Your task to perform on an android device: turn off location history Image 0: 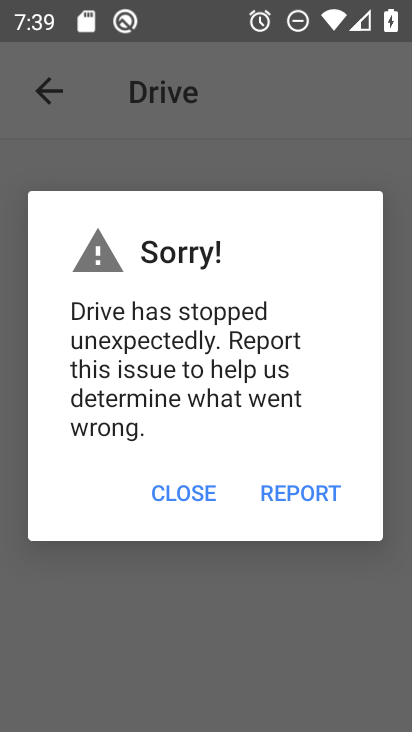
Step 0: press home button
Your task to perform on an android device: turn off location history Image 1: 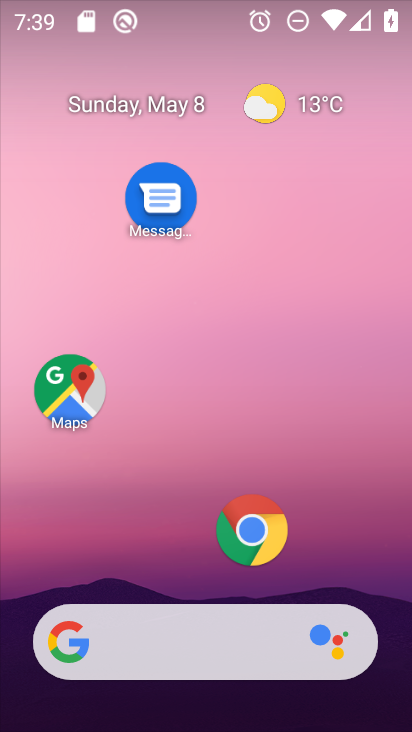
Step 1: drag from (207, 584) to (292, 4)
Your task to perform on an android device: turn off location history Image 2: 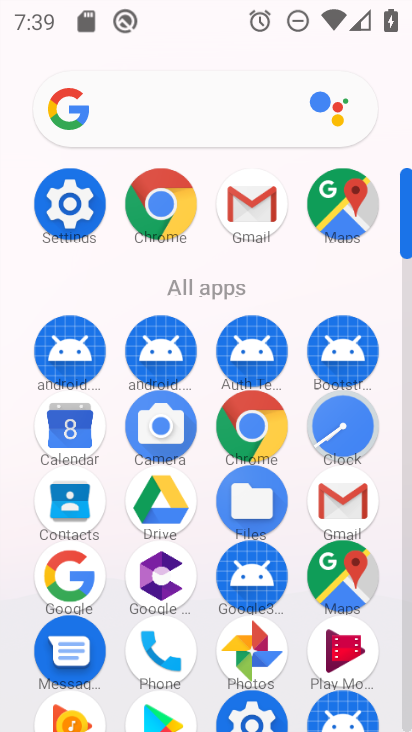
Step 2: click (63, 192)
Your task to perform on an android device: turn off location history Image 3: 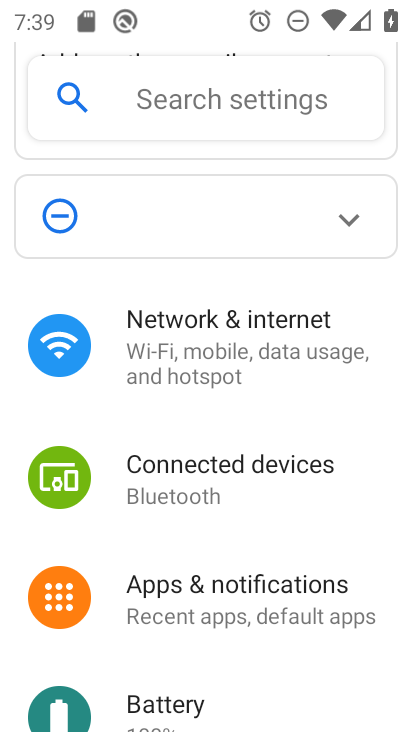
Step 3: drag from (235, 642) to (299, 10)
Your task to perform on an android device: turn off location history Image 4: 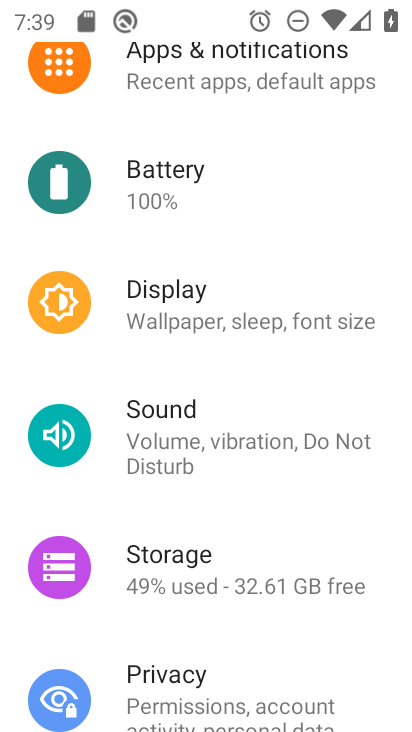
Step 4: drag from (180, 624) to (242, 265)
Your task to perform on an android device: turn off location history Image 5: 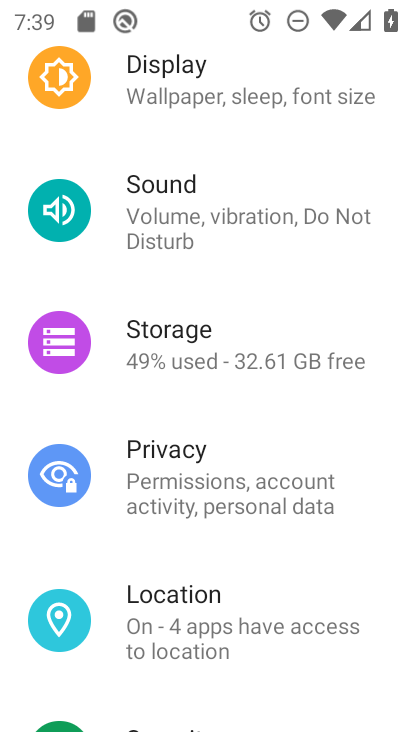
Step 5: click (183, 631)
Your task to perform on an android device: turn off location history Image 6: 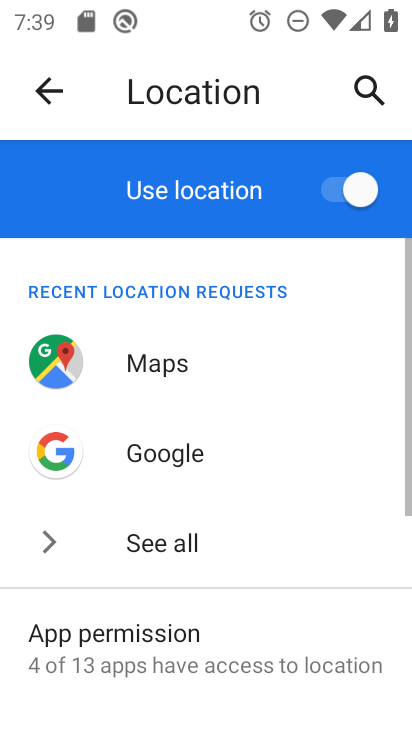
Step 6: drag from (219, 647) to (262, 57)
Your task to perform on an android device: turn off location history Image 7: 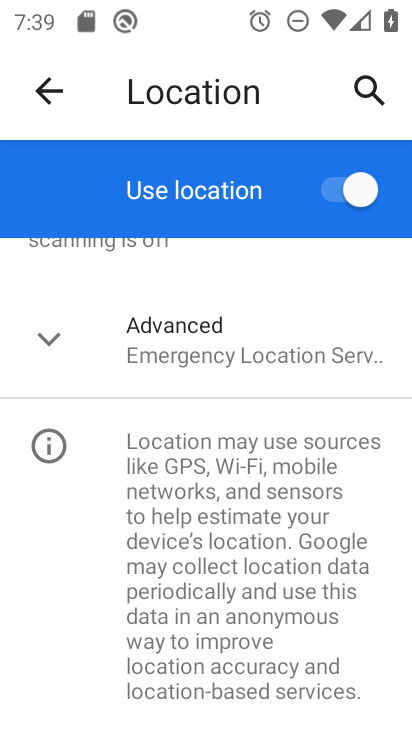
Step 7: click (48, 335)
Your task to perform on an android device: turn off location history Image 8: 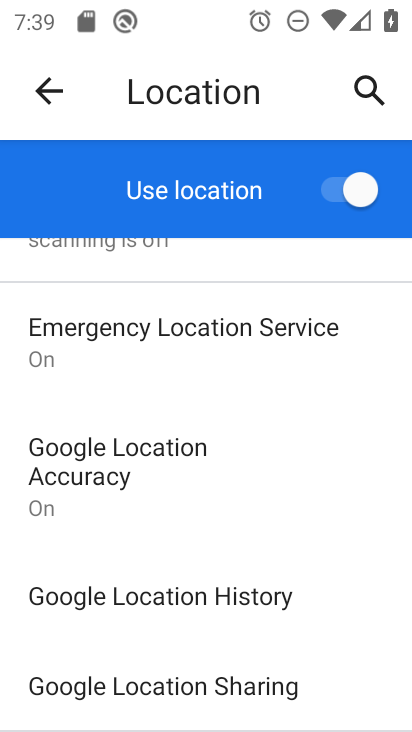
Step 8: click (202, 599)
Your task to perform on an android device: turn off location history Image 9: 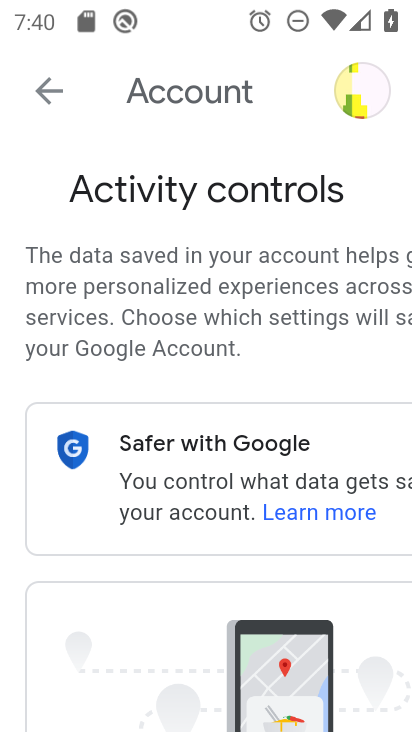
Step 9: drag from (167, 571) to (183, 65)
Your task to perform on an android device: turn off location history Image 10: 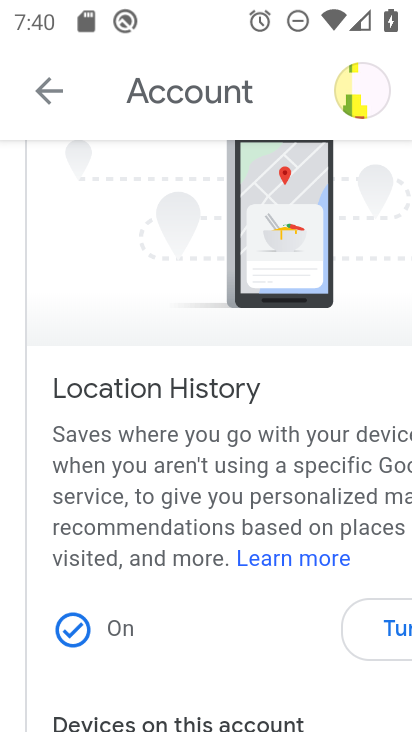
Step 10: drag from (198, 663) to (208, 229)
Your task to perform on an android device: turn off location history Image 11: 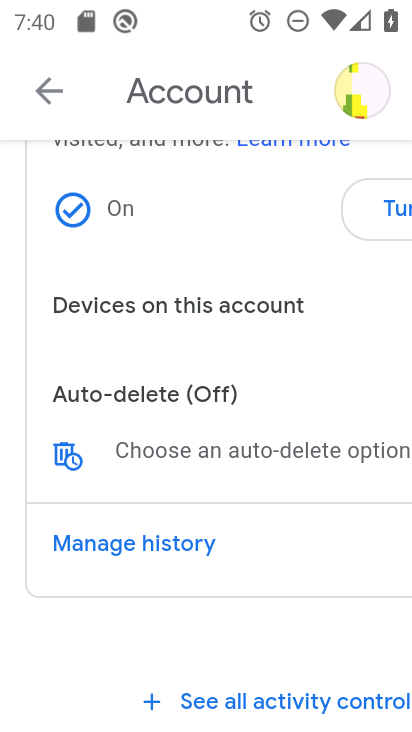
Step 11: click (402, 205)
Your task to perform on an android device: turn off location history Image 12: 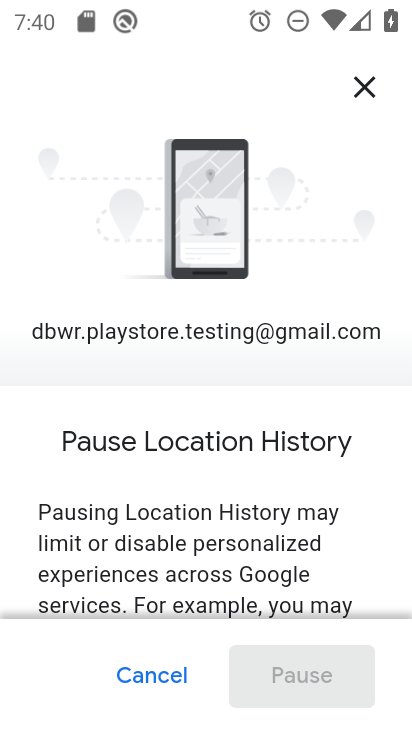
Step 12: drag from (238, 554) to (307, 23)
Your task to perform on an android device: turn off location history Image 13: 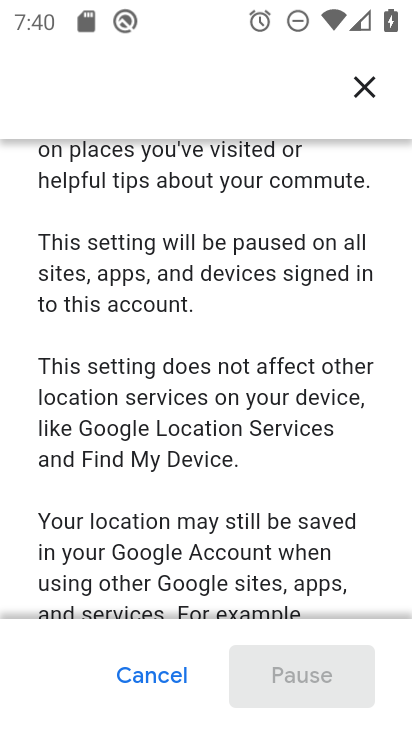
Step 13: drag from (228, 601) to (249, 34)
Your task to perform on an android device: turn off location history Image 14: 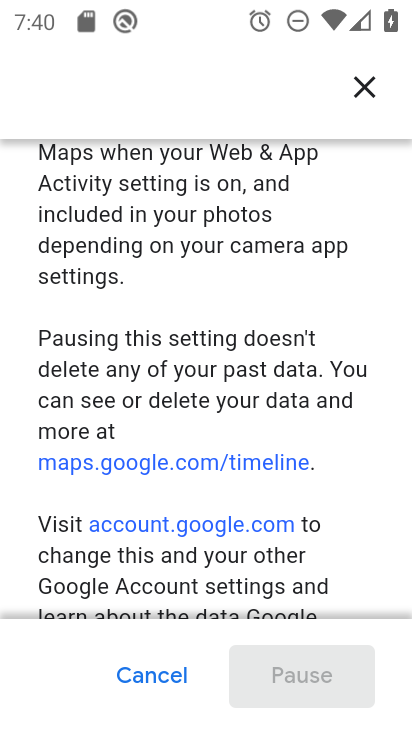
Step 14: drag from (238, 568) to (248, 121)
Your task to perform on an android device: turn off location history Image 15: 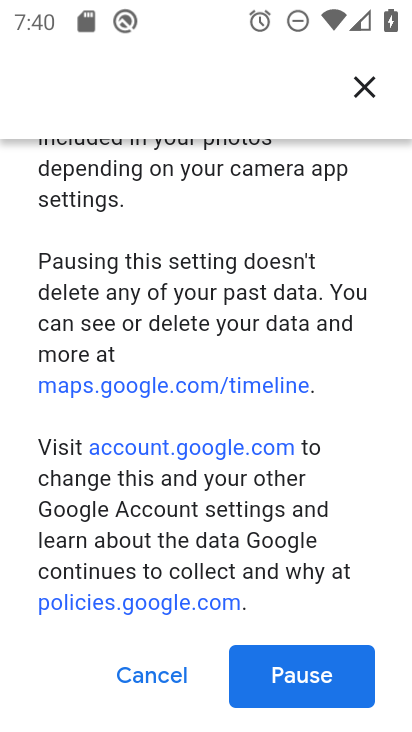
Step 15: click (301, 671)
Your task to perform on an android device: turn off location history Image 16: 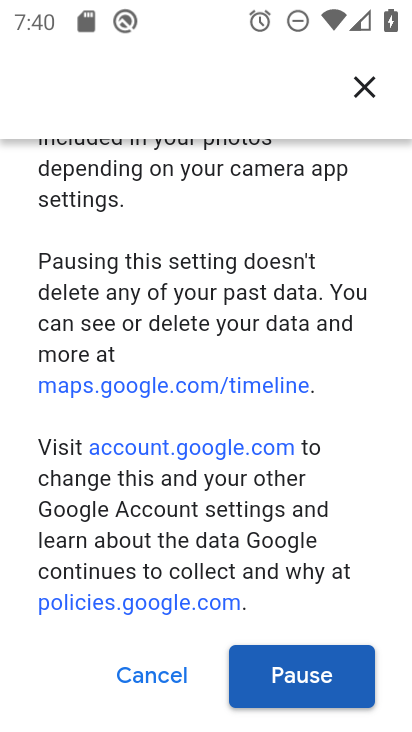
Step 16: click (301, 671)
Your task to perform on an android device: turn off location history Image 17: 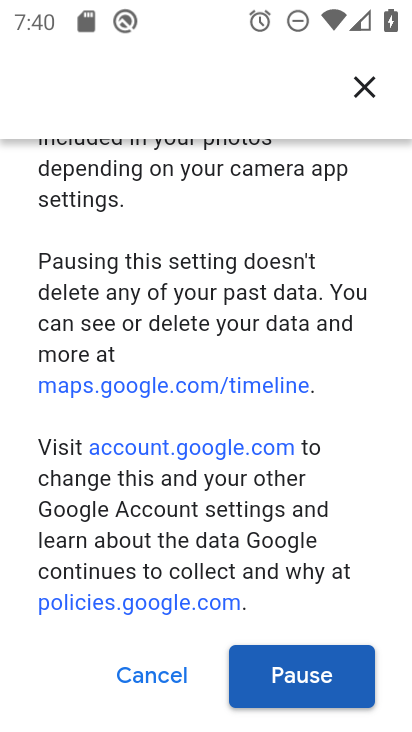
Step 17: click (301, 671)
Your task to perform on an android device: turn off location history Image 18: 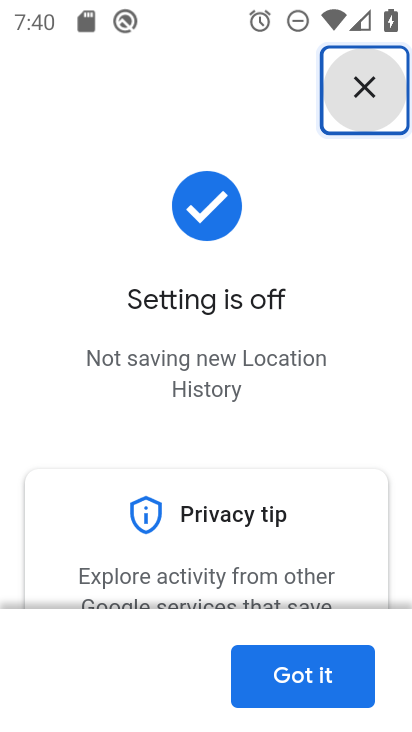
Step 18: click (314, 671)
Your task to perform on an android device: turn off location history Image 19: 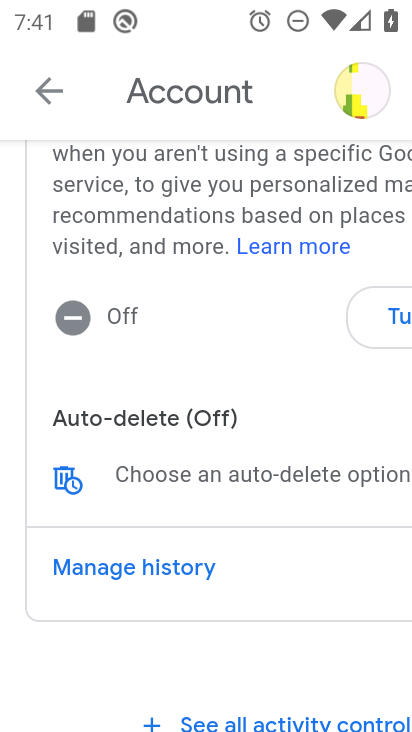
Step 19: task complete